Your task to perform on an android device: Add jbl flip 4 to the cart on costco.com, then select checkout. Image 0: 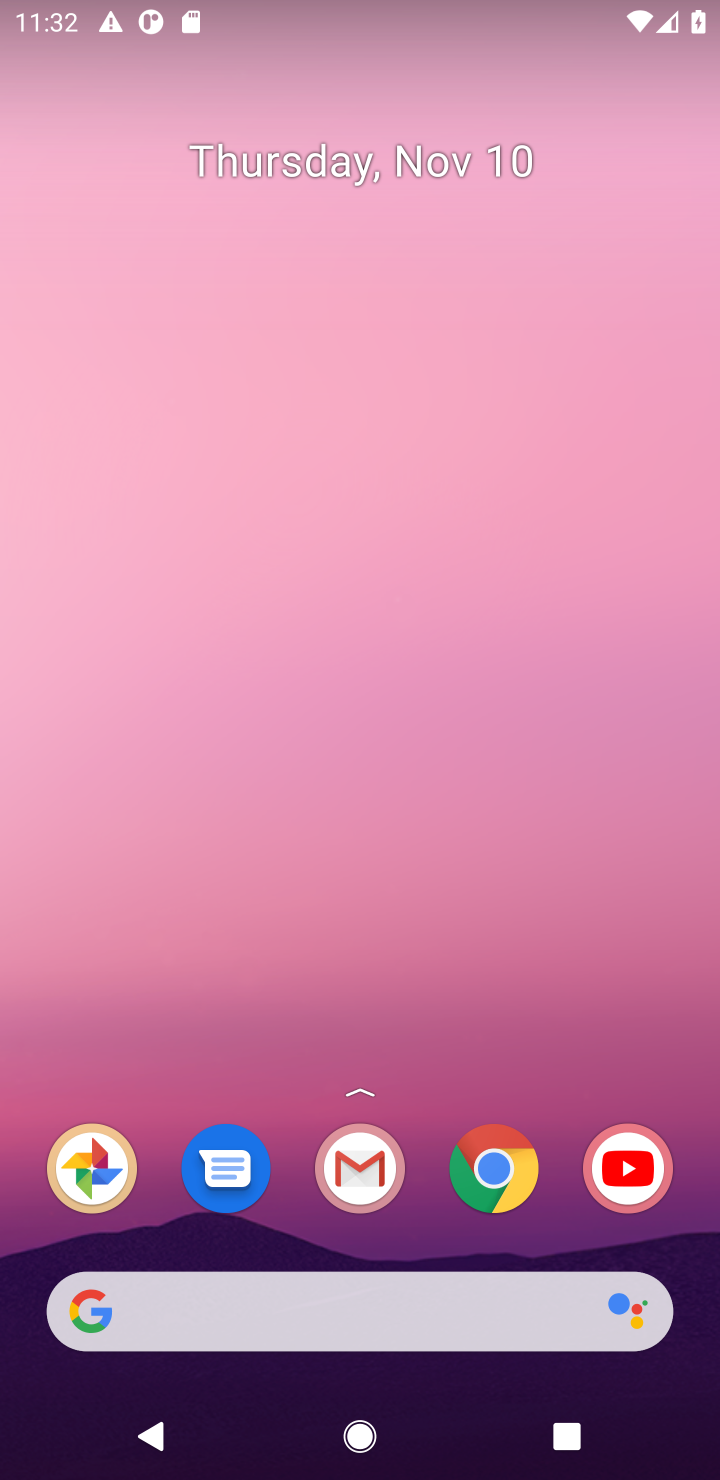
Step 0: click (503, 1169)
Your task to perform on an android device: Add jbl flip 4 to the cart on costco.com, then select checkout. Image 1: 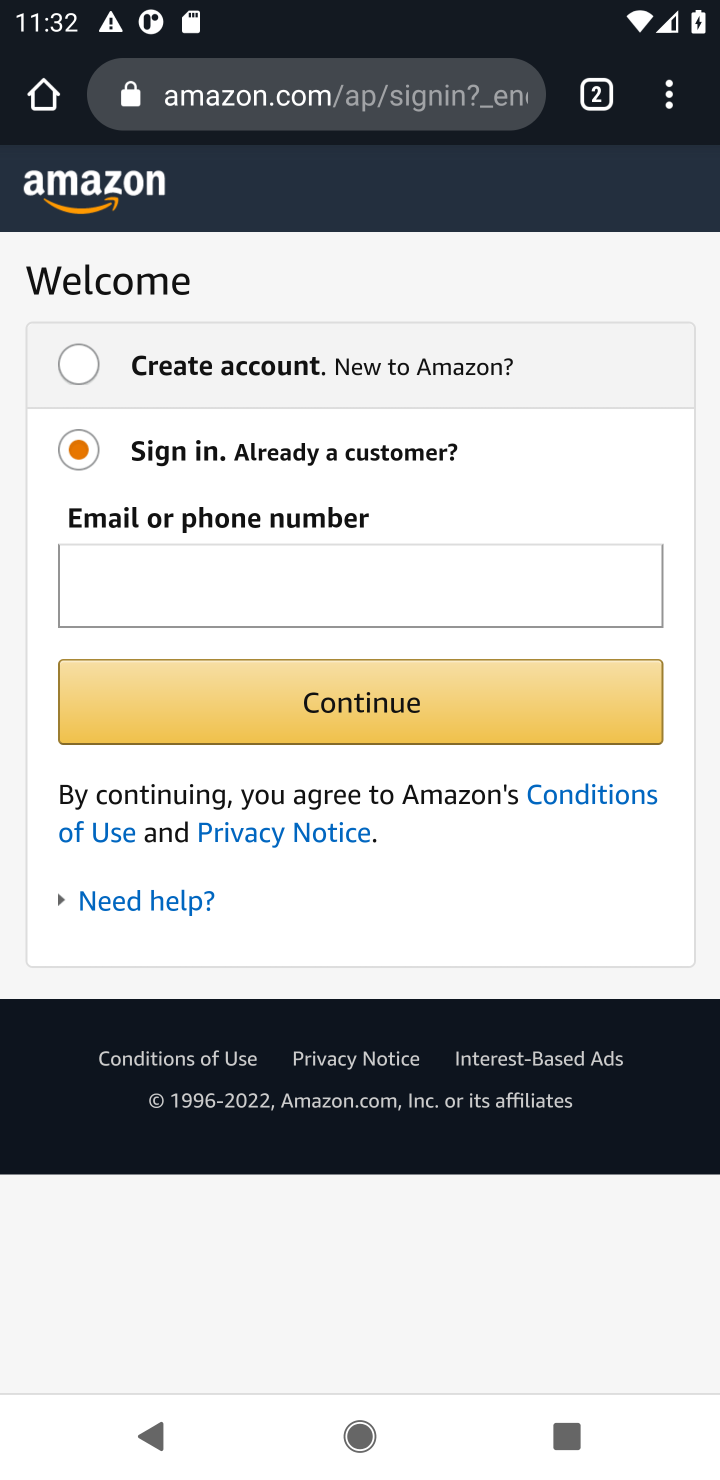
Step 1: click (301, 101)
Your task to perform on an android device: Add jbl flip 4 to the cart on costco.com, then select checkout. Image 2: 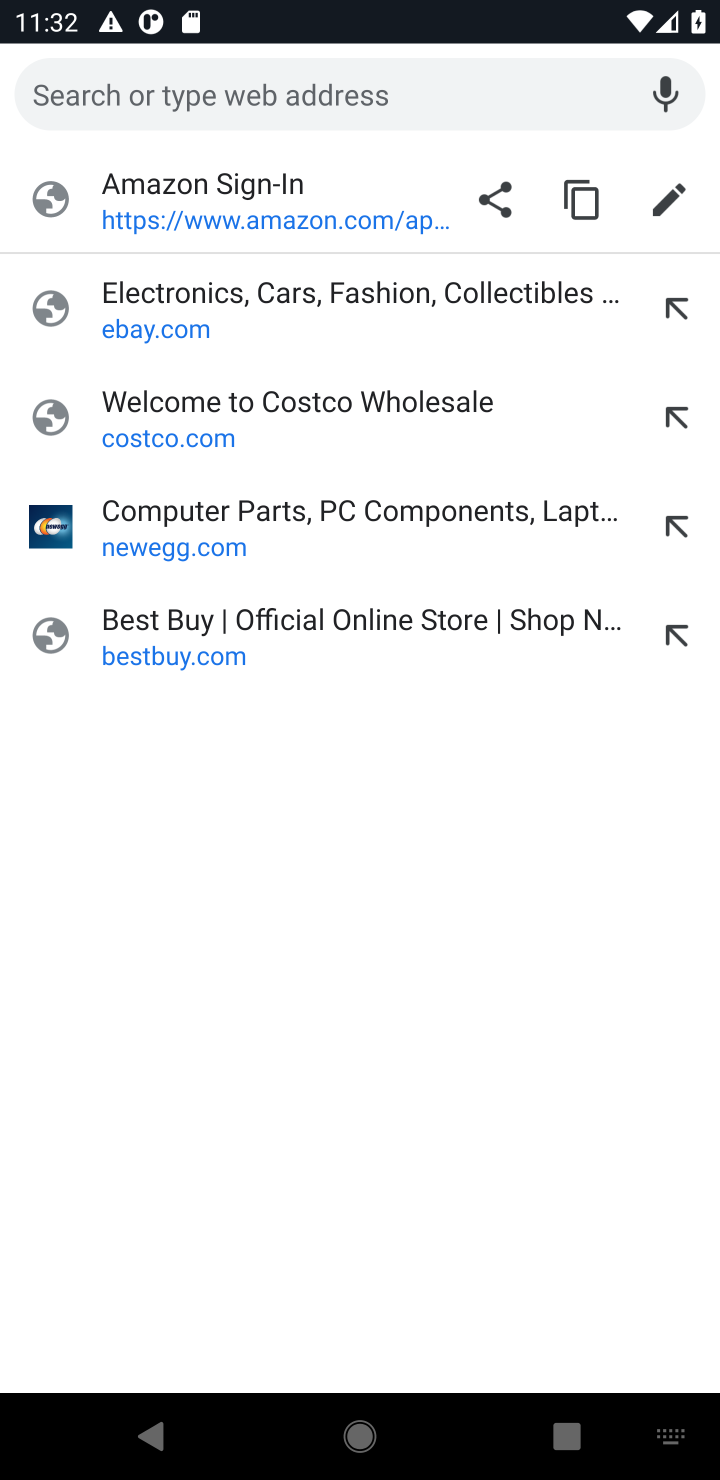
Step 2: click (166, 434)
Your task to perform on an android device: Add jbl flip 4 to the cart on costco.com, then select checkout. Image 3: 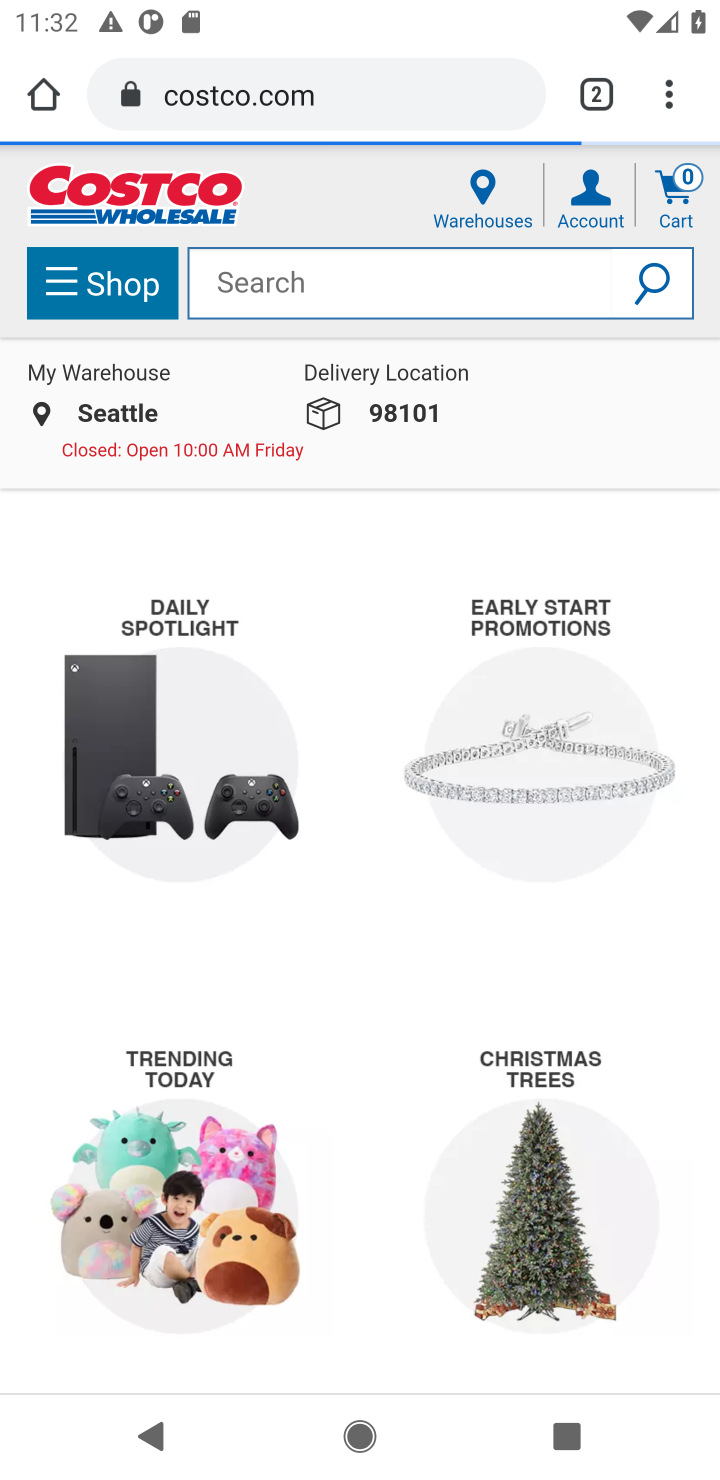
Step 3: click (264, 296)
Your task to perform on an android device: Add jbl flip 4 to the cart on costco.com, then select checkout. Image 4: 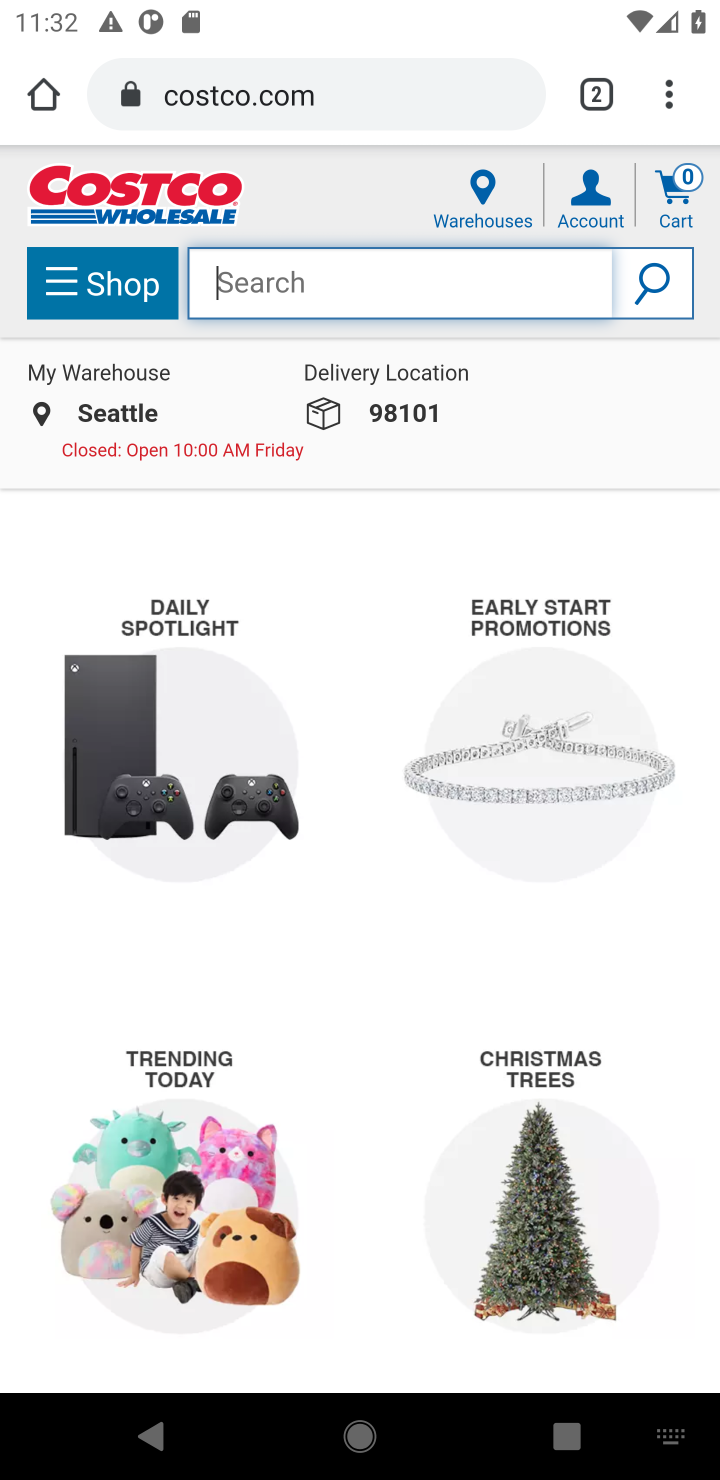
Step 4: type "jbl flip 4"
Your task to perform on an android device: Add jbl flip 4 to the cart on costco.com, then select checkout. Image 5: 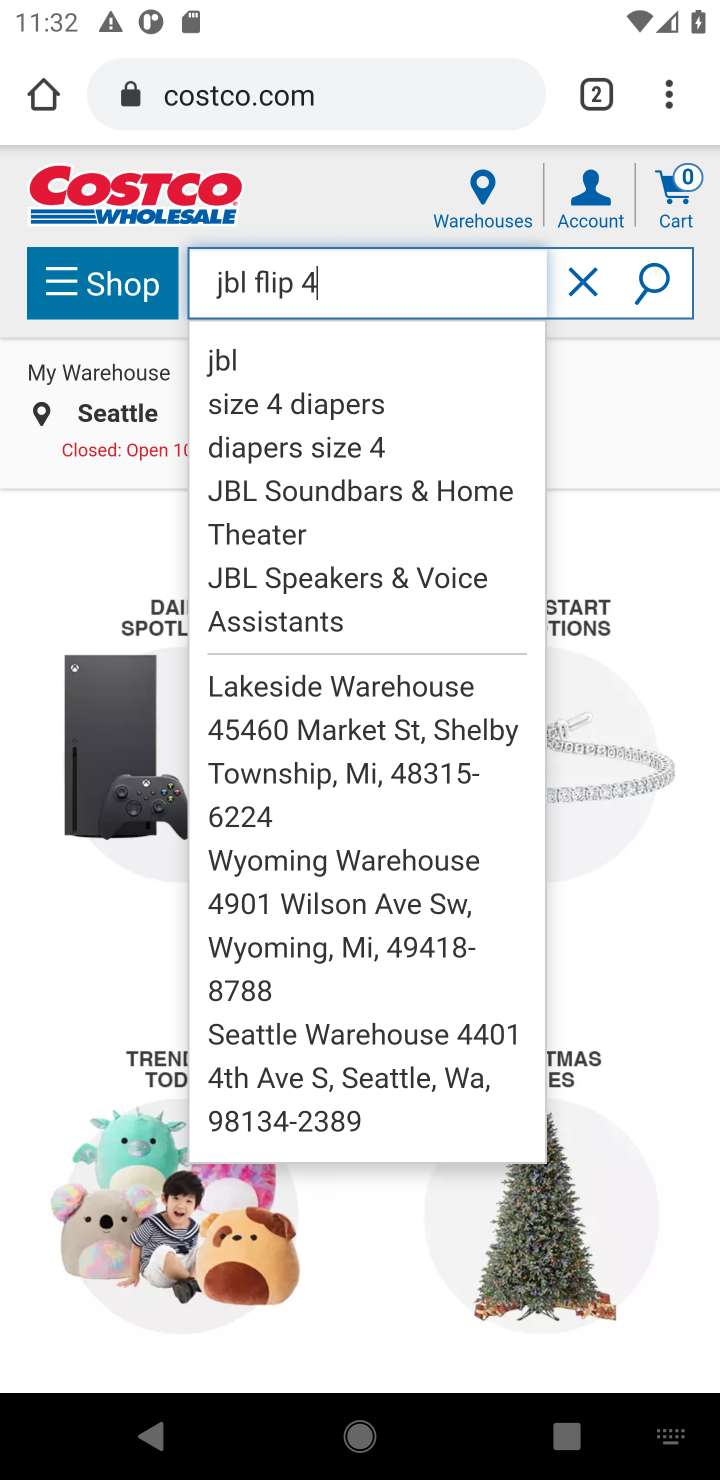
Step 5: click (644, 275)
Your task to perform on an android device: Add jbl flip 4 to the cart on costco.com, then select checkout. Image 6: 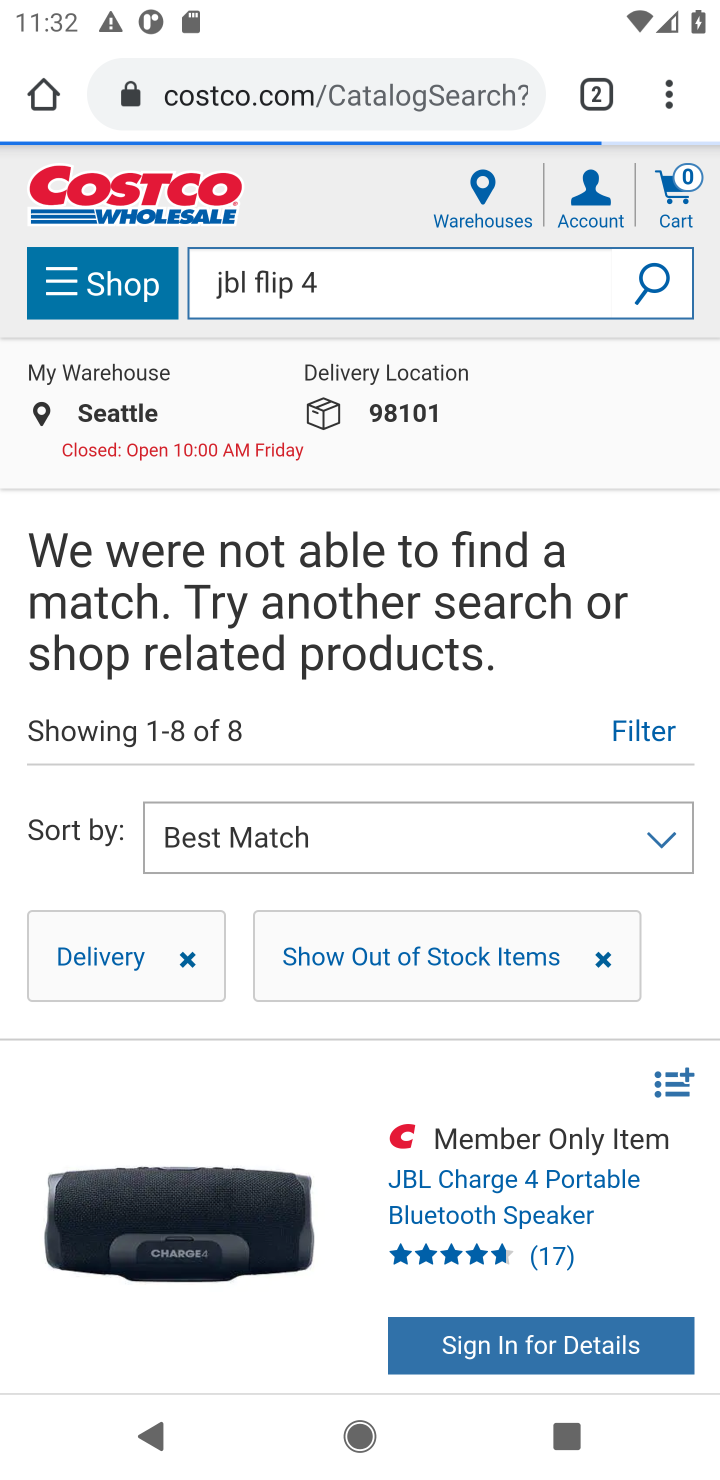
Step 6: task complete